Your task to perform on an android device: Open sound settings Image 0: 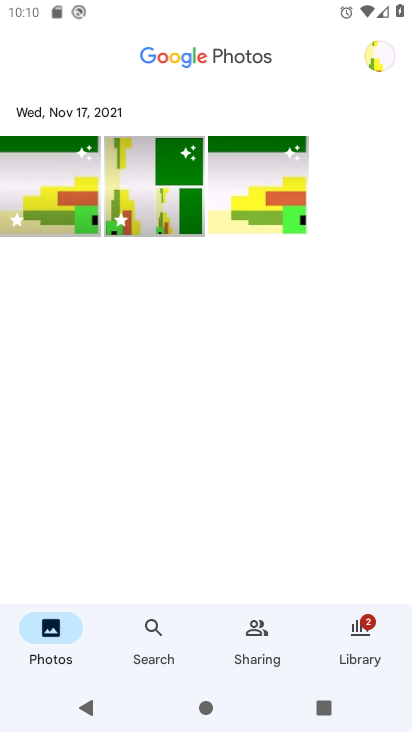
Step 0: press home button
Your task to perform on an android device: Open sound settings Image 1: 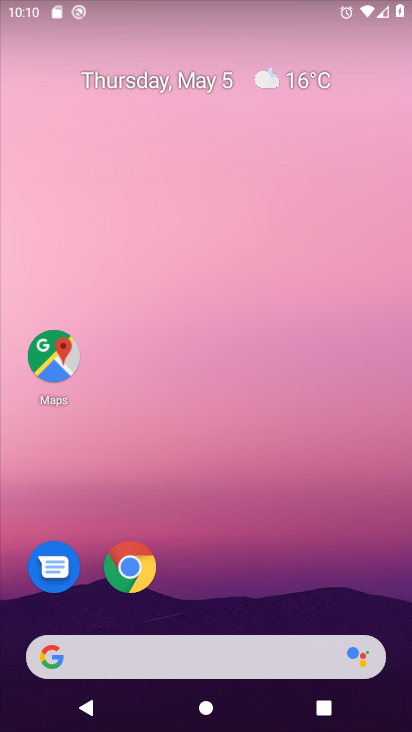
Step 1: drag from (279, 484) to (263, 1)
Your task to perform on an android device: Open sound settings Image 2: 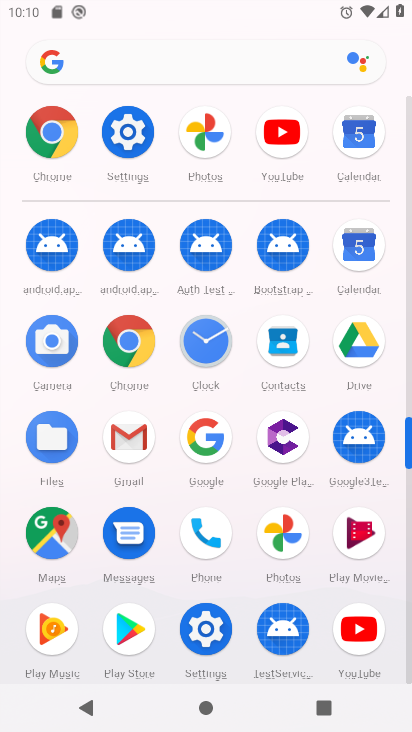
Step 2: click (125, 127)
Your task to perform on an android device: Open sound settings Image 3: 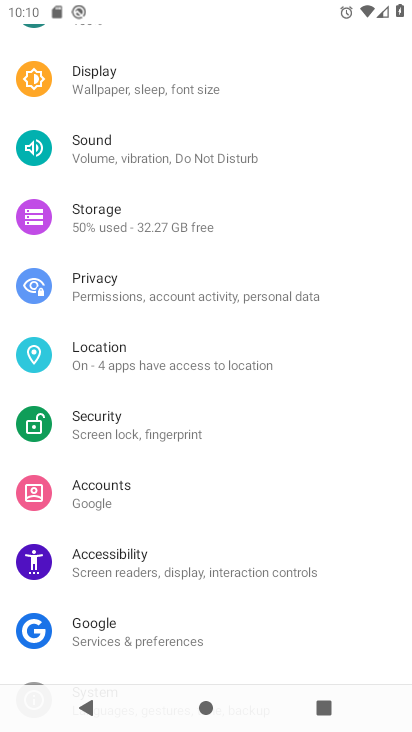
Step 3: click (135, 140)
Your task to perform on an android device: Open sound settings Image 4: 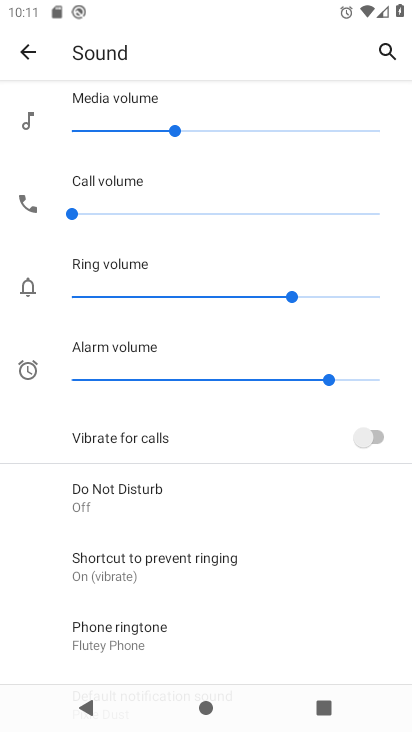
Step 4: task complete